Your task to perform on an android device: Clear all items from cart on ebay.com. Add lenovo thinkpad to the cart on ebay.com Image 0: 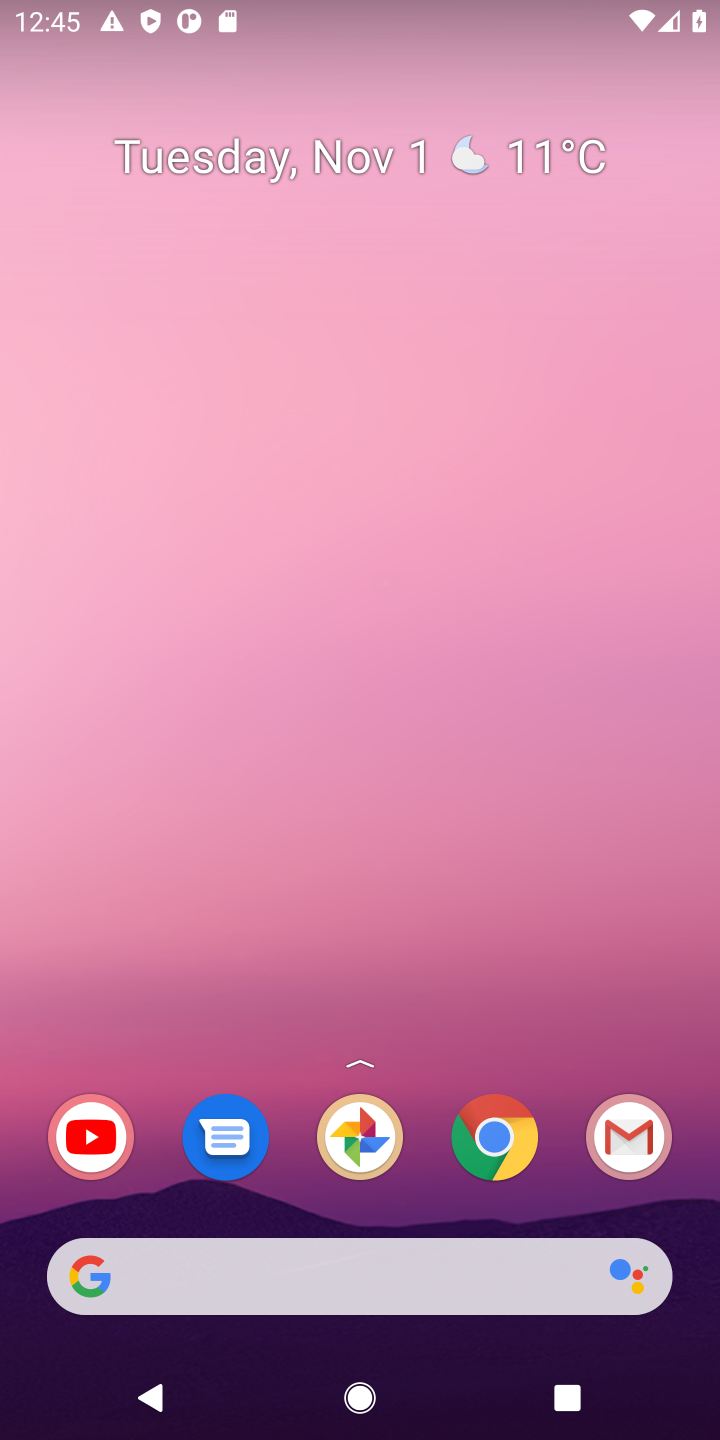
Step 0: click (486, 1137)
Your task to perform on an android device: Clear all items from cart on ebay.com. Add lenovo thinkpad to the cart on ebay.com Image 1: 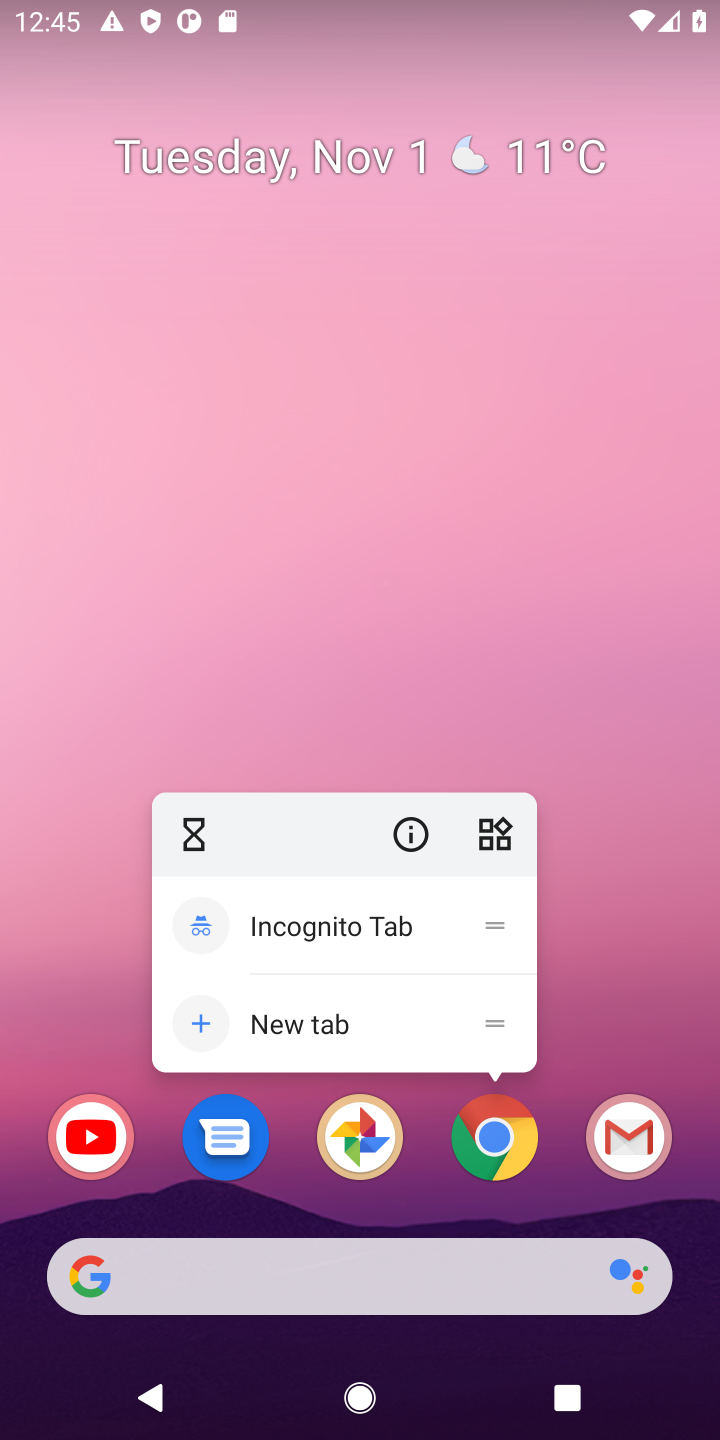
Step 1: click (488, 1141)
Your task to perform on an android device: Clear all items from cart on ebay.com. Add lenovo thinkpad to the cart on ebay.com Image 2: 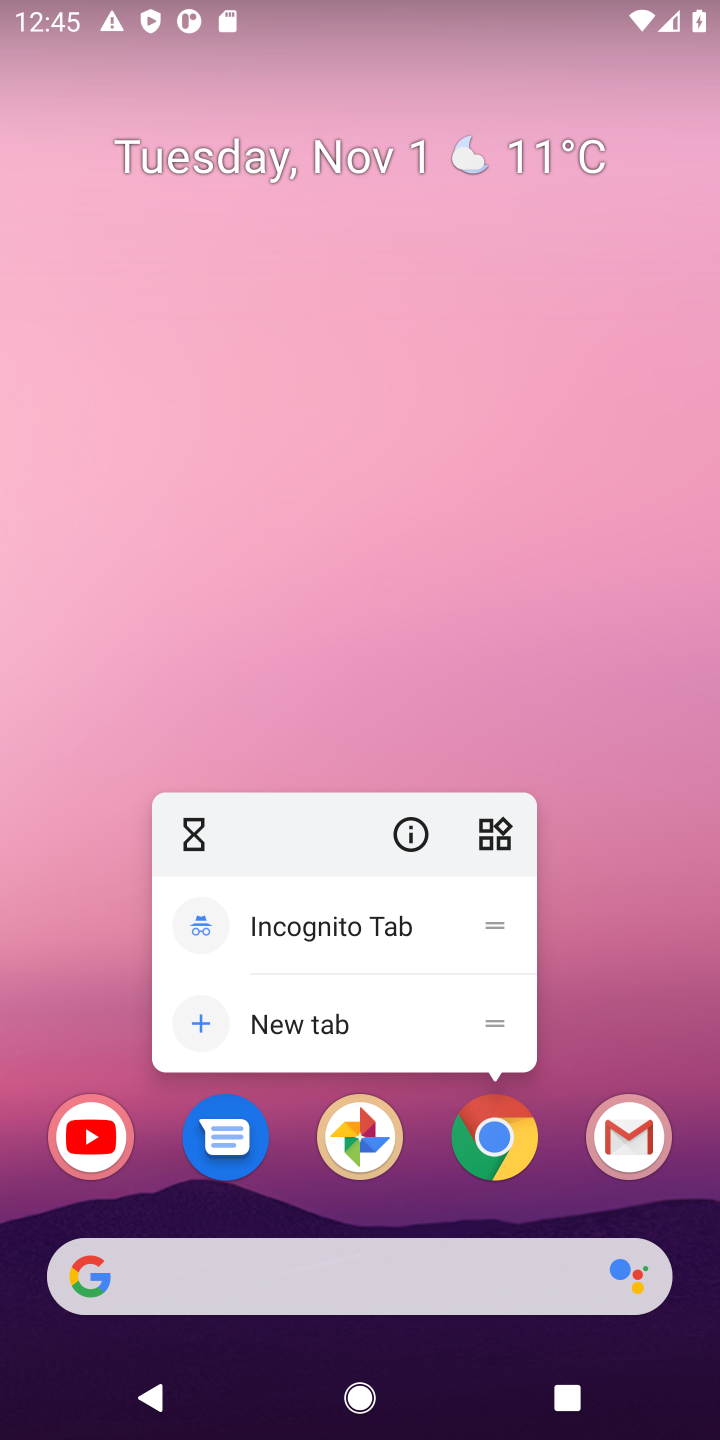
Step 2: click (488, 1141)
Your task to perform on an android device: Clear all items from cart on ebay.com. Add lenovo thinkpad to the cart on ebay.com Image 3: 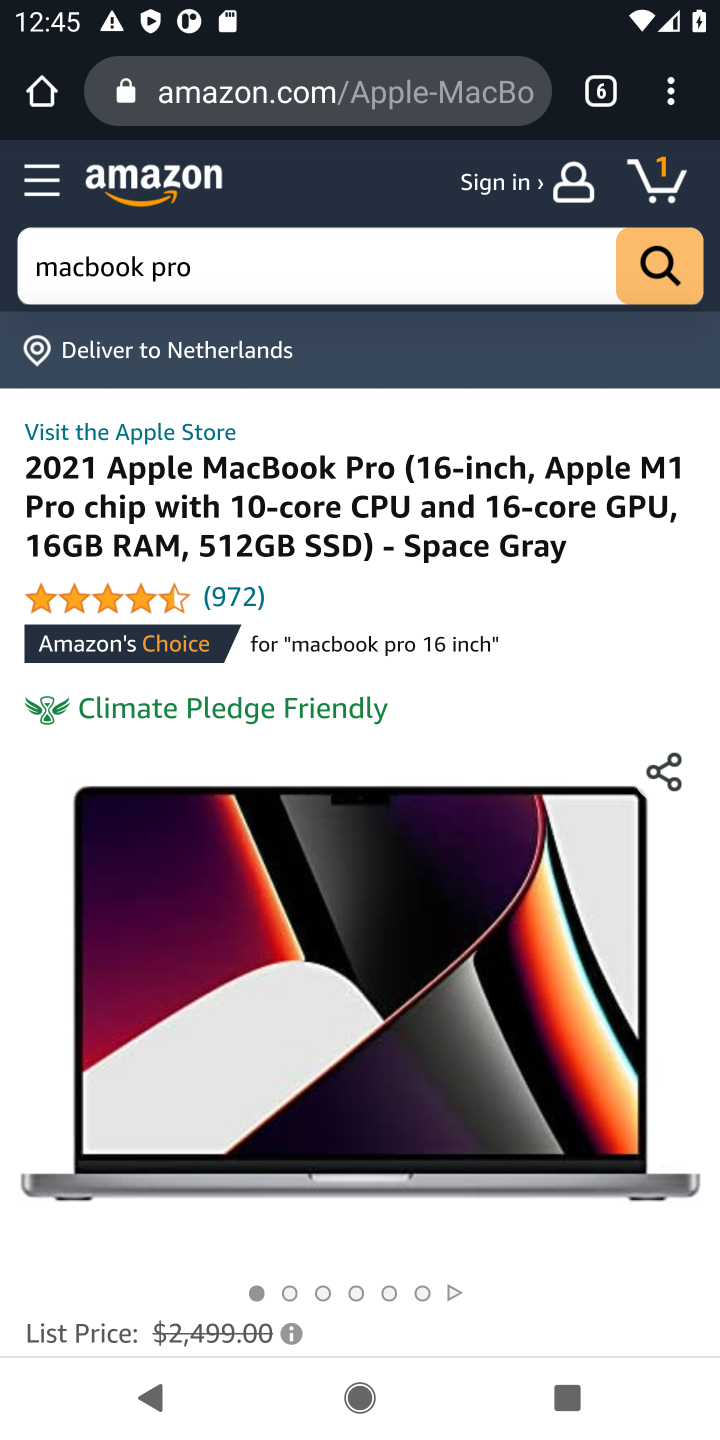
Step 3: click (598, 100)
Your task to perform on an android device: Clear all items from cart on ebay.com. Add lenovo thinkpad to the cart on ebay.com Image 4: 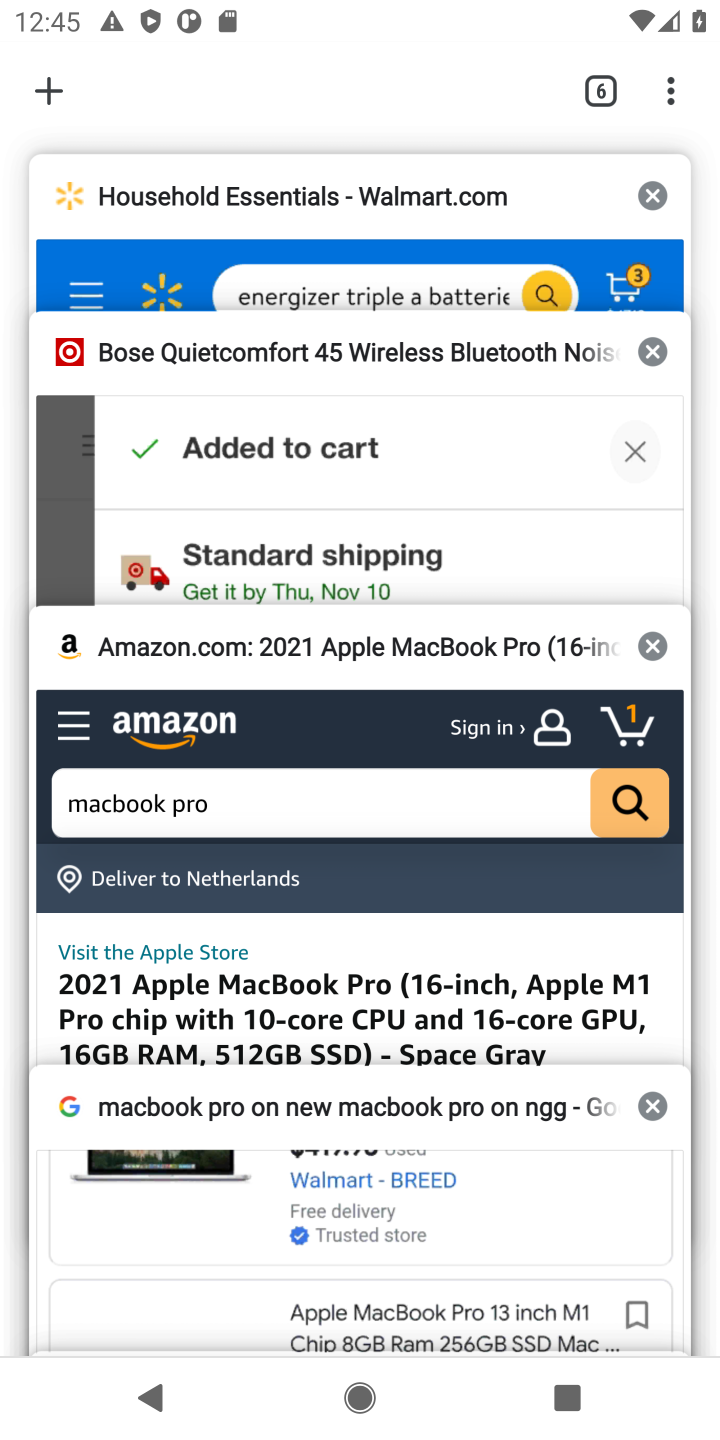
Step 4: drag from (162, 1238) to (320, 541)
Your task to perform on an android device: Clear all items from cart on ebay.com. Add lenovo thinkpad to the cart on ebay.com Image 5: 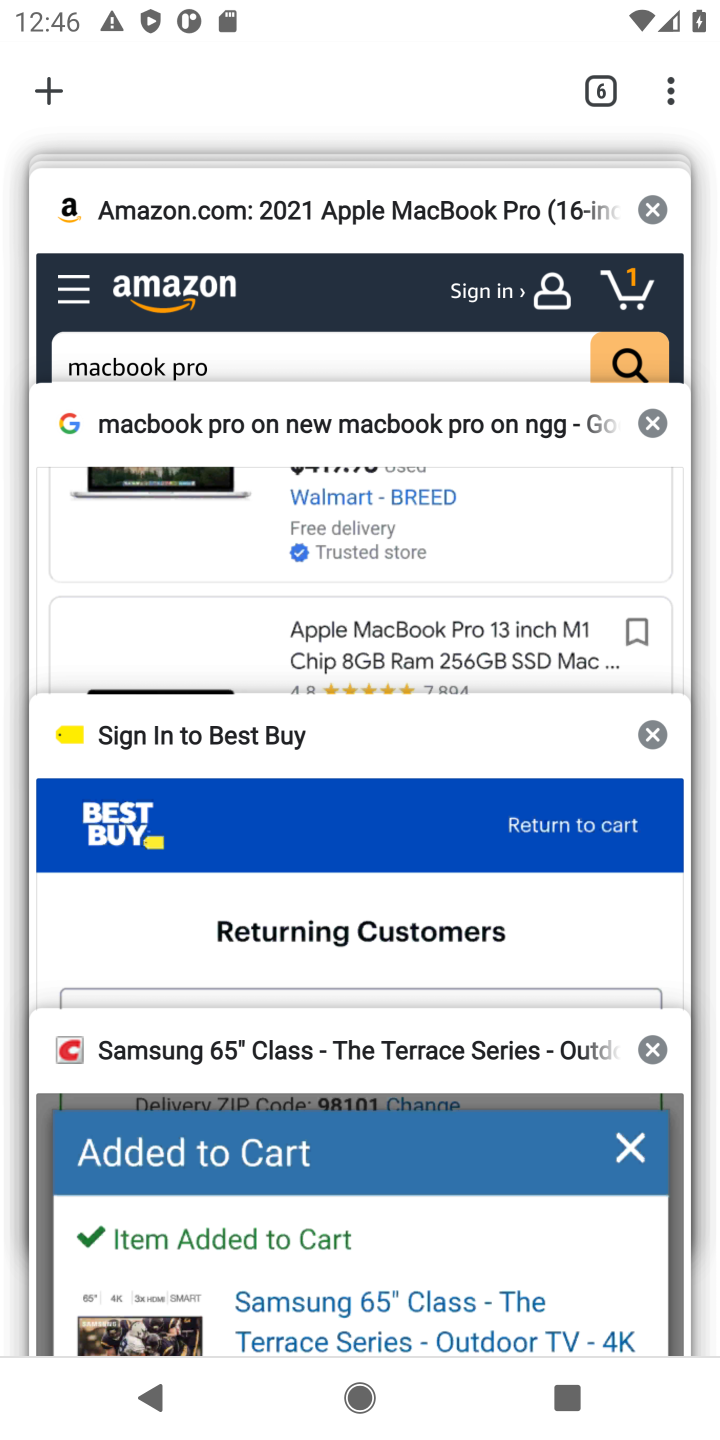
Step 5: click (45, 83)
Your task to perform on an android device: Clear all items from cart on ebay.com. Add lenovo thinkpad to the cart on ebay.com Image 6: 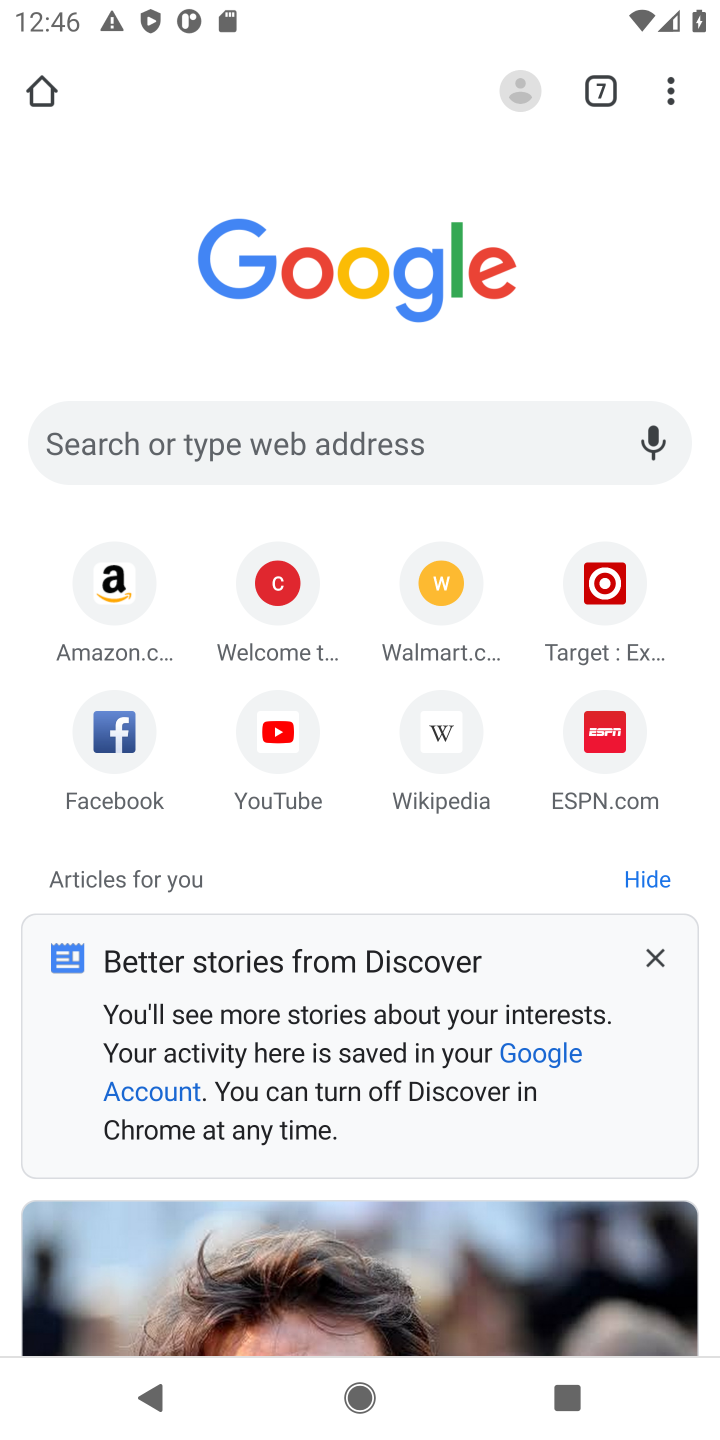
Step 6: click (350, 428)
Your task to perform on an android device: Clear all items from cart on ebay.com. Add lenovo thinkpad to the cart on ebay.com Image 7: 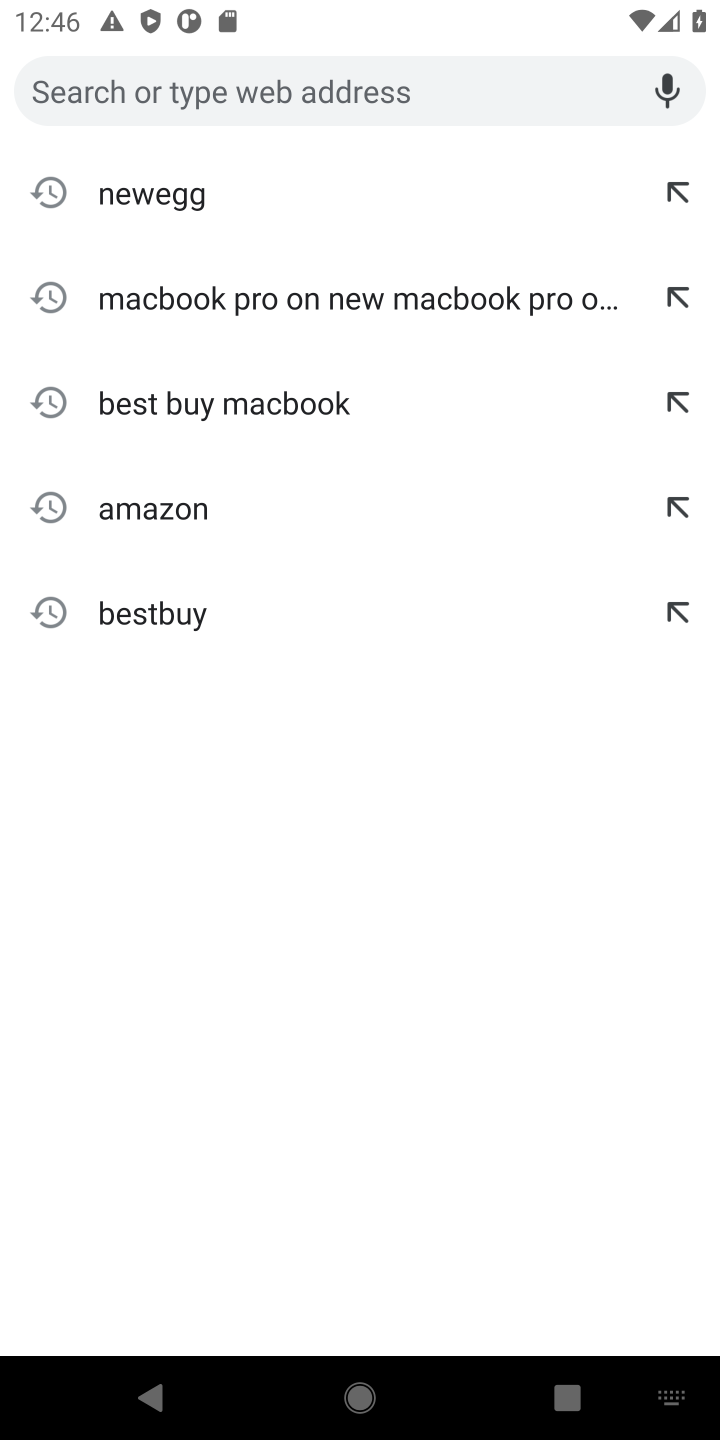
Step 7: type "ebay"
Your task to perform on an android device: Clear all items from cart on ebay.com. Add lenovo thinkpad to the cart on ebay.com Image 8: 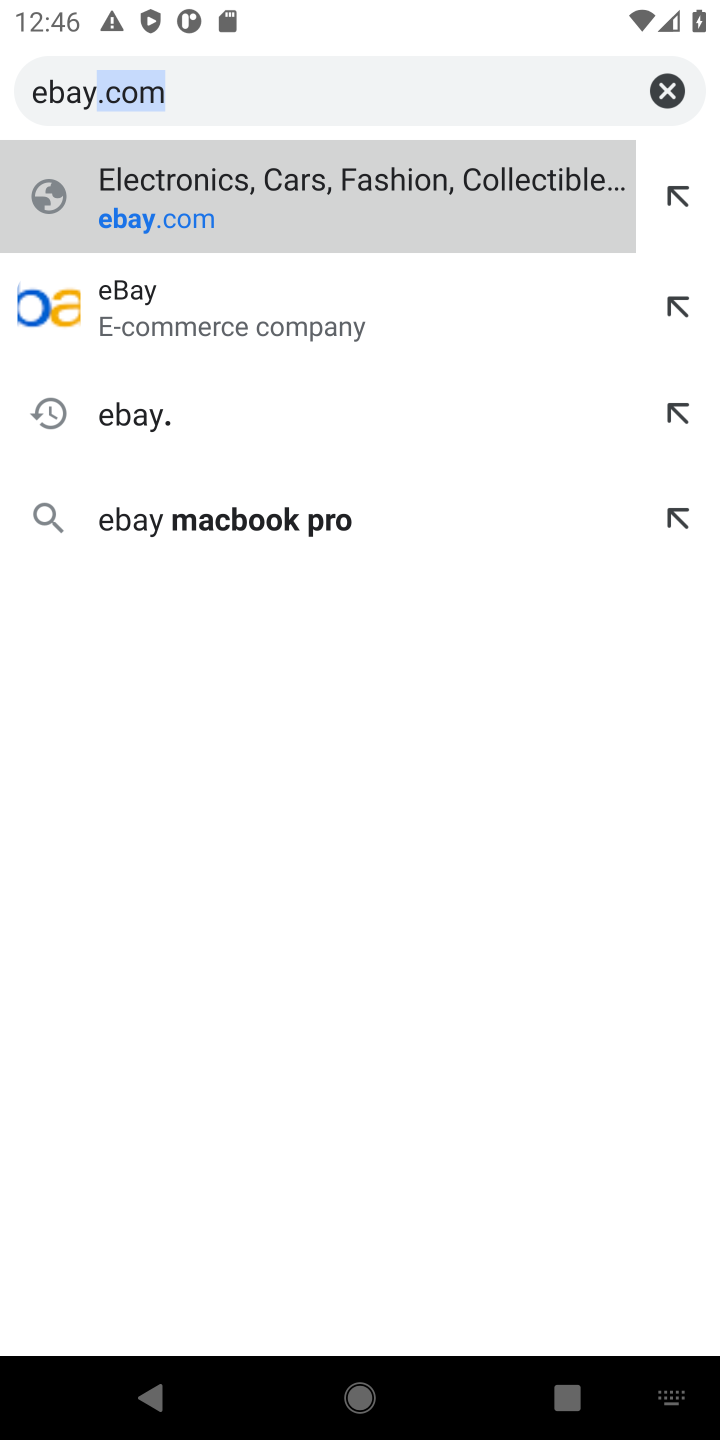
Step 8: click (180, 213)
Your task to perform on an android device: Clear all items from cart on ebay.com. Add lenovo thinkpad to the cart on ebay.com Image 9: 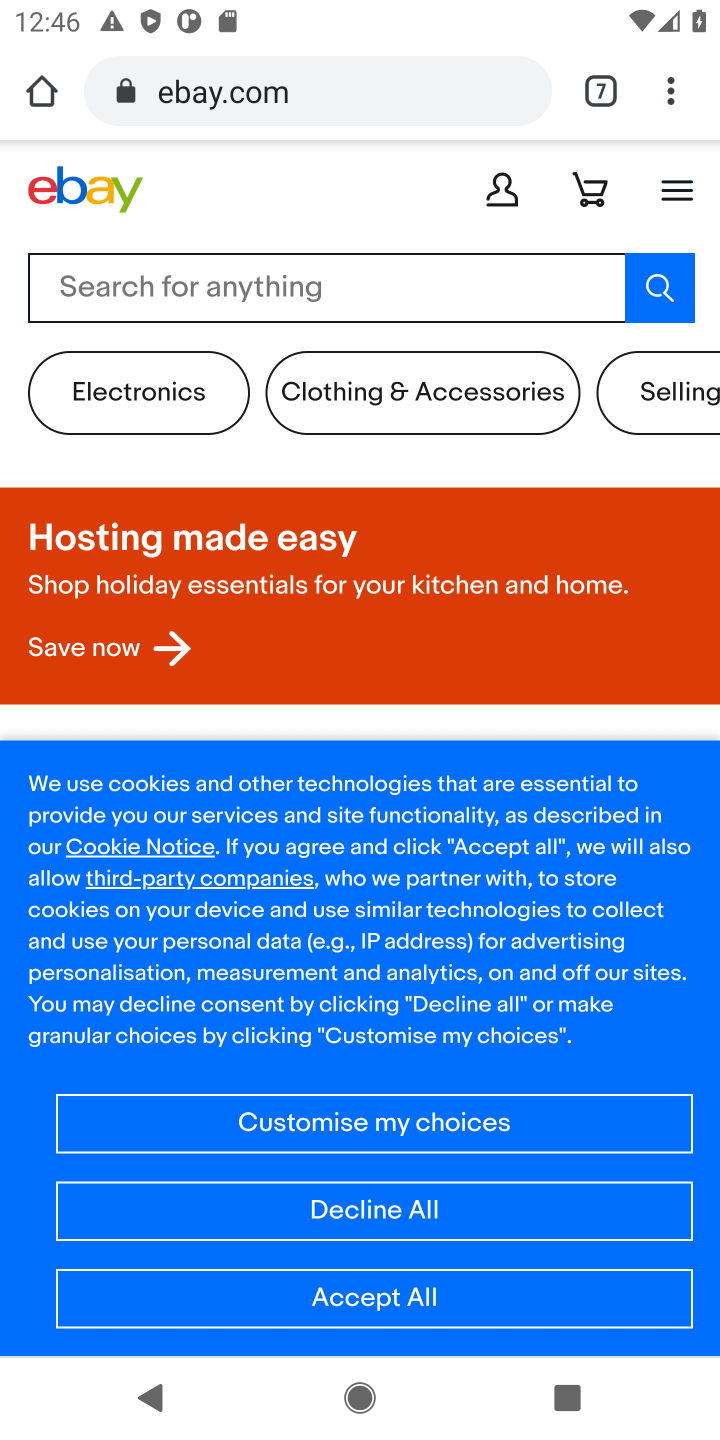
Step 9: click (412, 1209)
Your task to perform on an android device: Clear all items from cart on ebay.com. Add lenovo thinkpad to the cart on ebay.com Image 10: 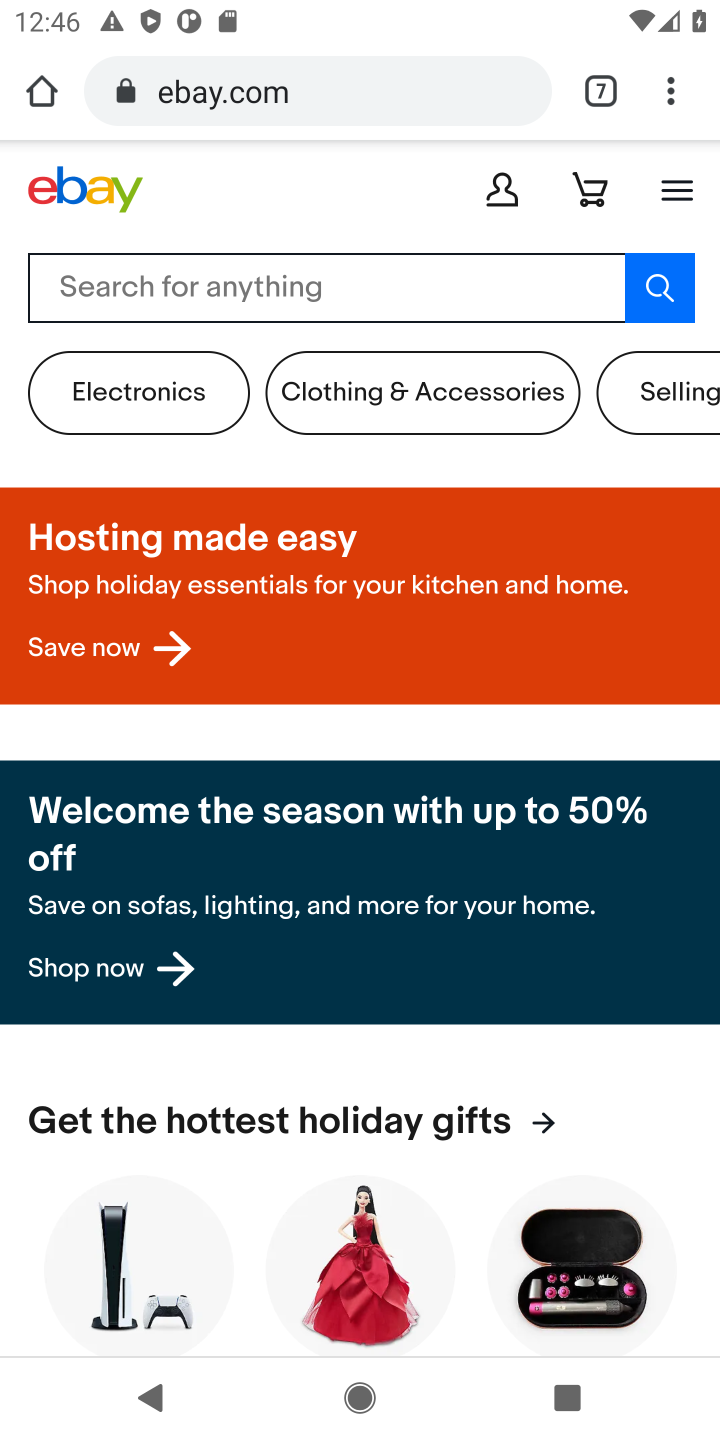
Step 10: click (334, 280)
Your task to perform on an android device: Clear all items from cart on ebay.com. Add lenovo thinkpad to the cart on ebay.com Image 11: 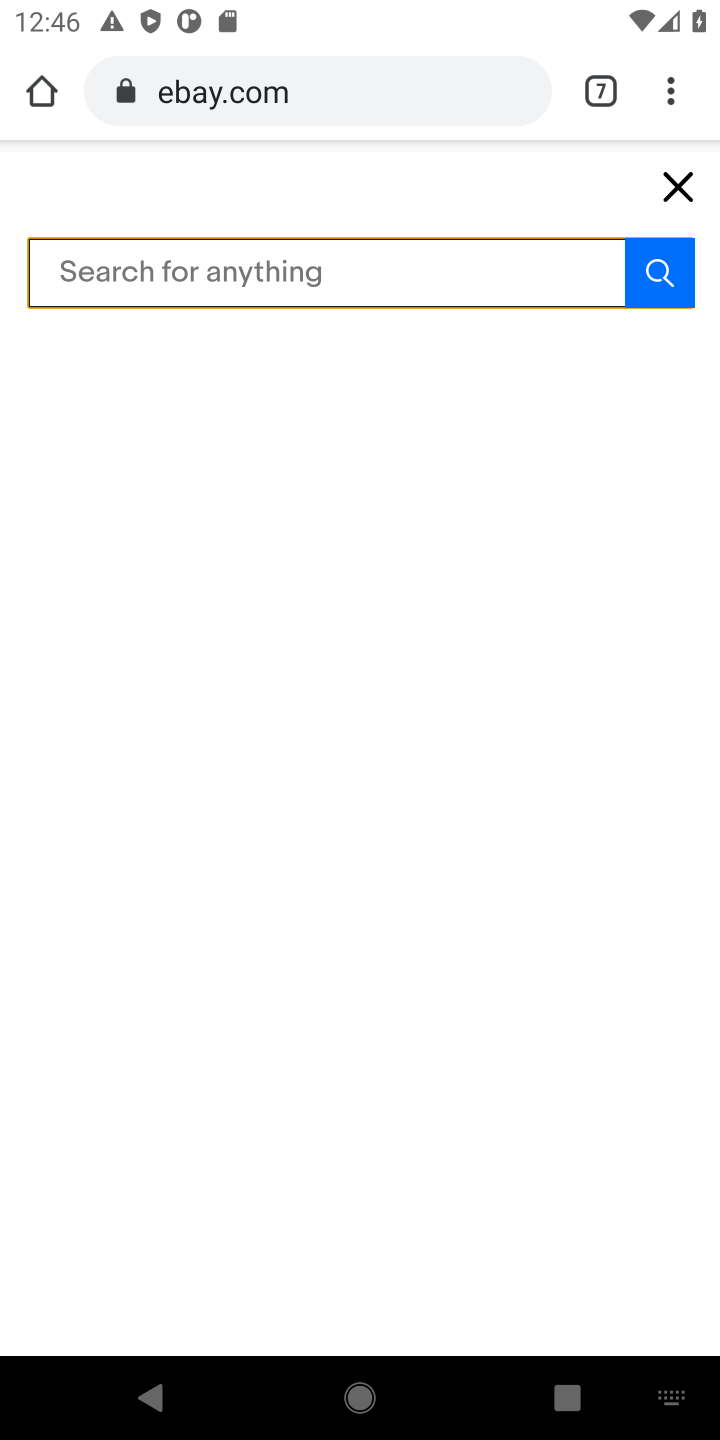
Step 11: type "lenovo thinkpad"
Your task to perform on an android device: Clear all items from cart on ebay.com. Add lenovo thinkpad to the cart on ebay.com Image 12: 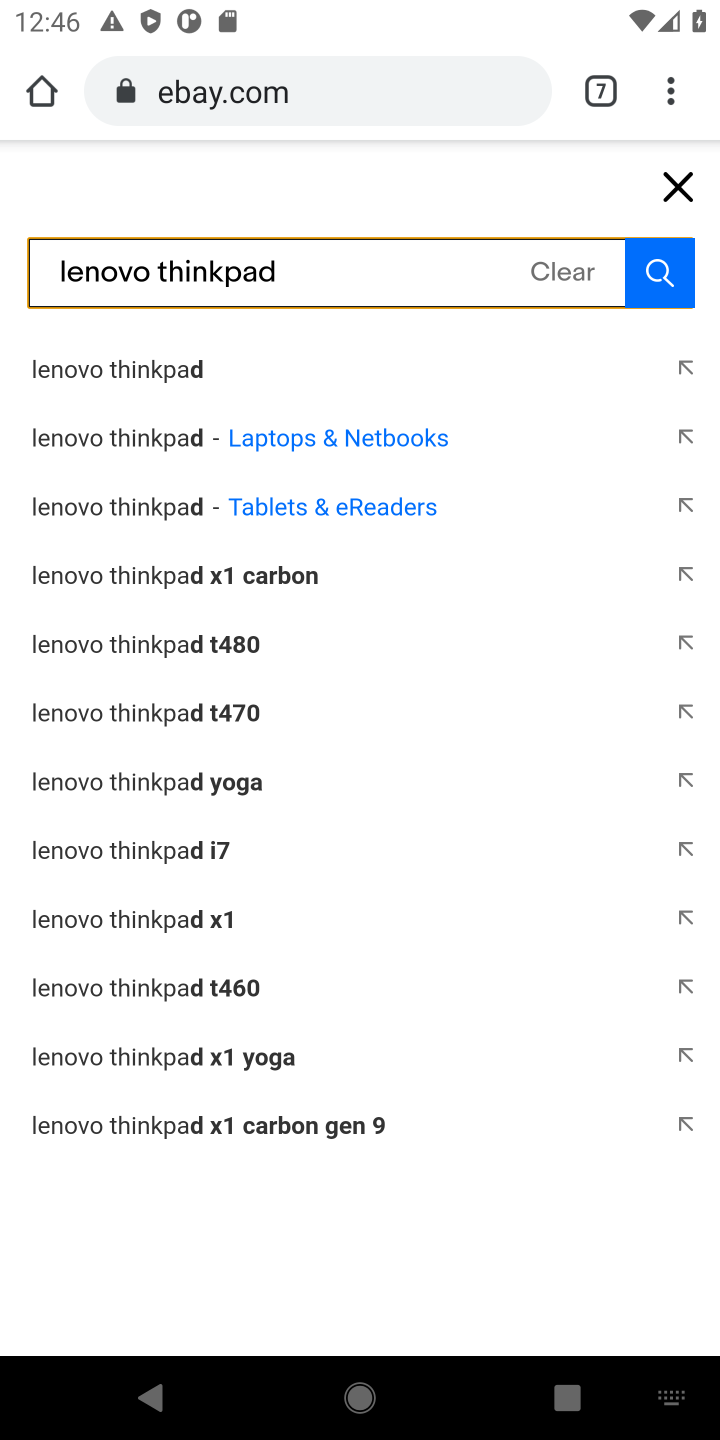
Step 12: click (156, 424)
Your task to perform on an android device: Clear all items from cart on ebay.com. Add lenovo thinkpad to the cart on ebay.com Image 13: 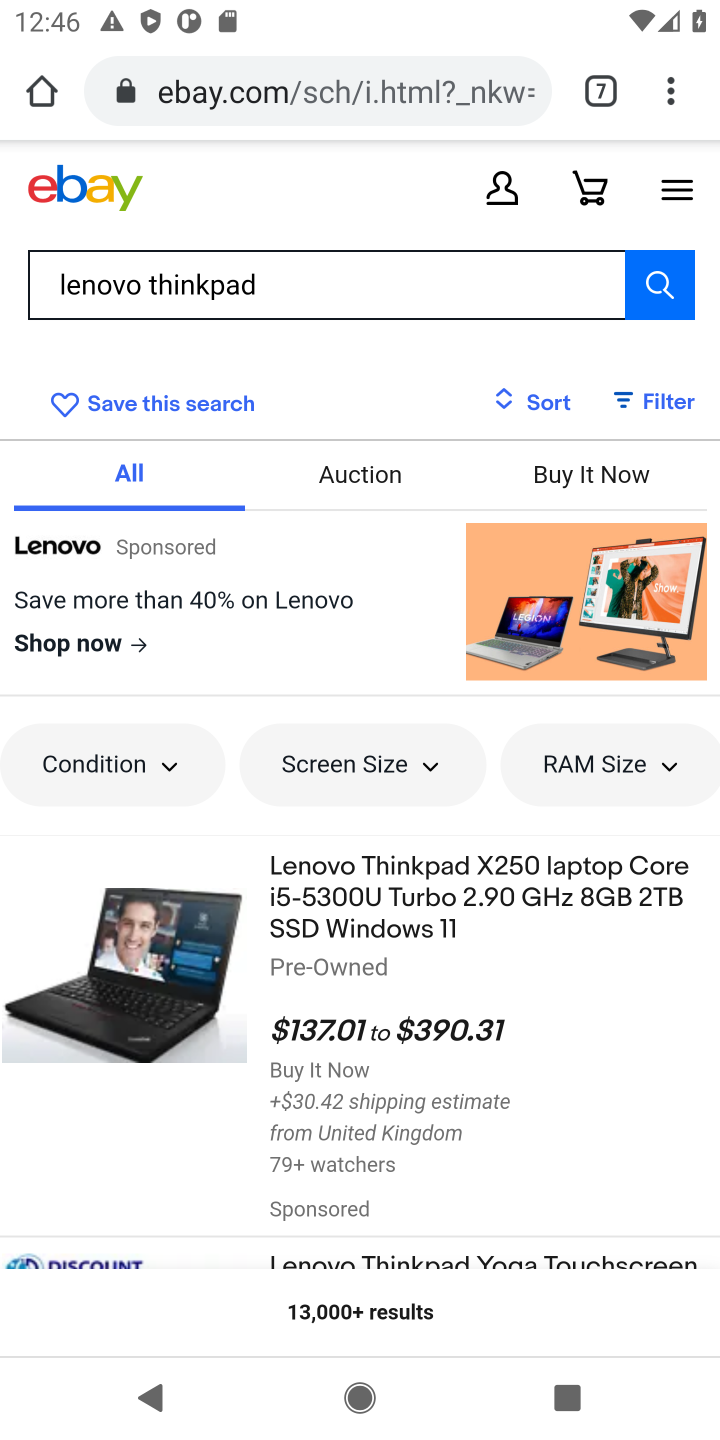
Step 13: click (380, 926)
Your task to perform on an android device: Clear all items from cart on ebay.com. Add lenovo thinkpad to the cart on ebay.com Image 14: 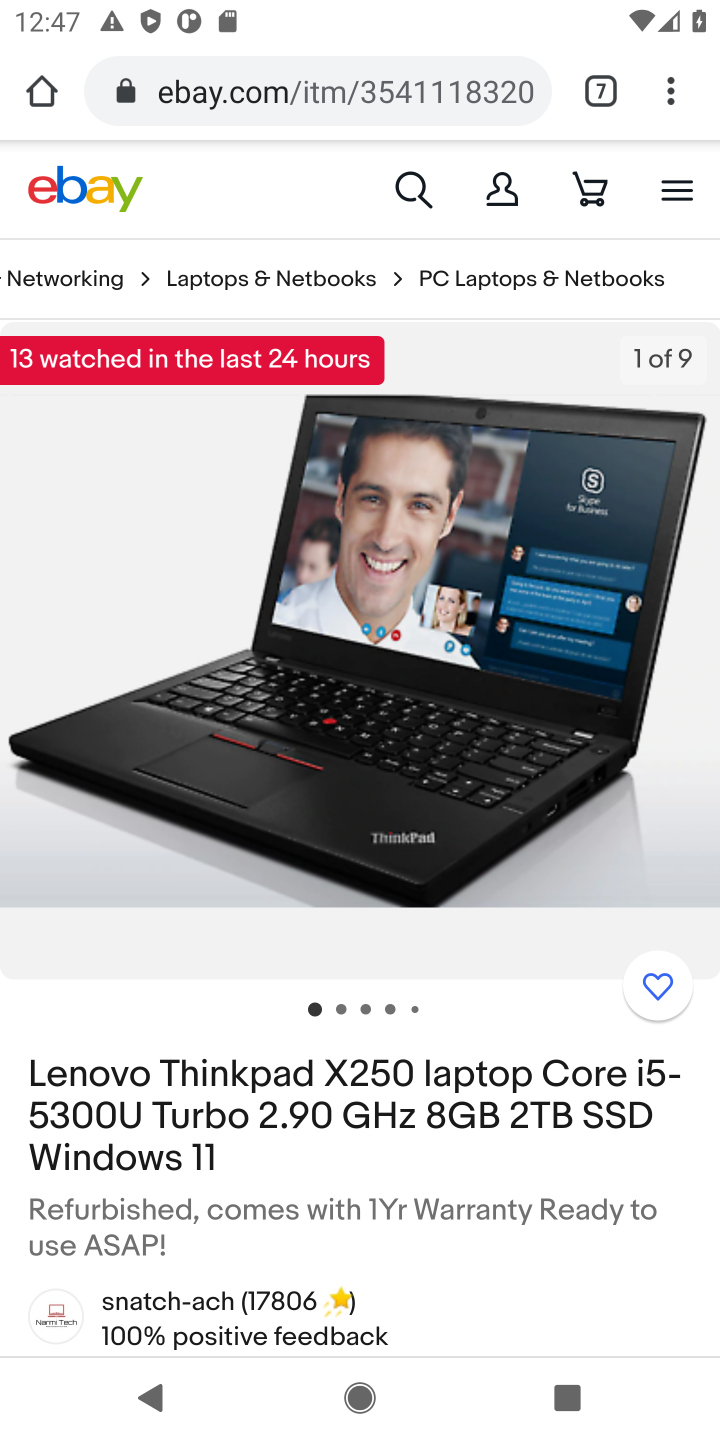
Step 14: drag from (403, 1243) to (551, 374)
Your task to perform on an android device: Clear all items from cart on ebay.com. Add lenovo thinkpad to the cart on ebay.com Image 15: 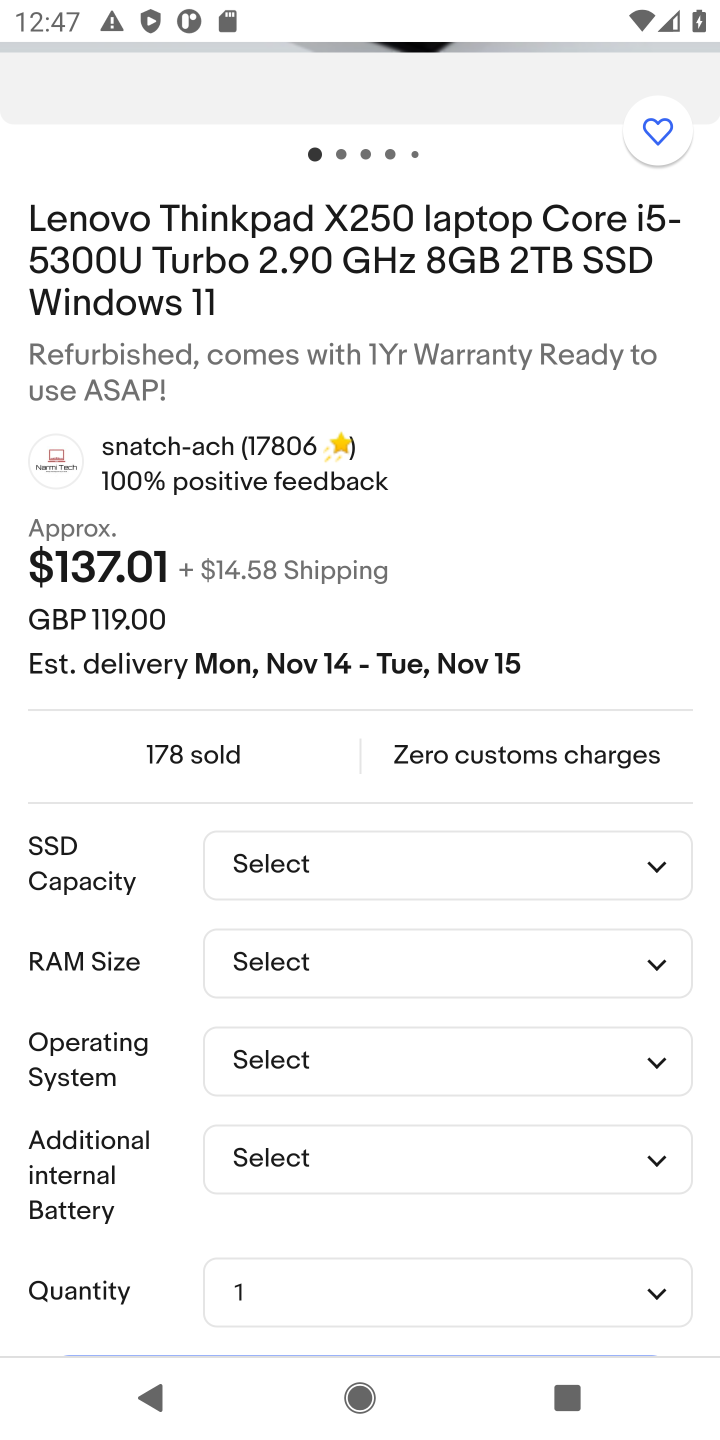
Step 15: drag from (457, 1057) to (515, 720)
Your task to perform on an android device: Clear all items from cart on ebay.com. Add lenovo thinkpad to the cart on ebay.com Image 16: 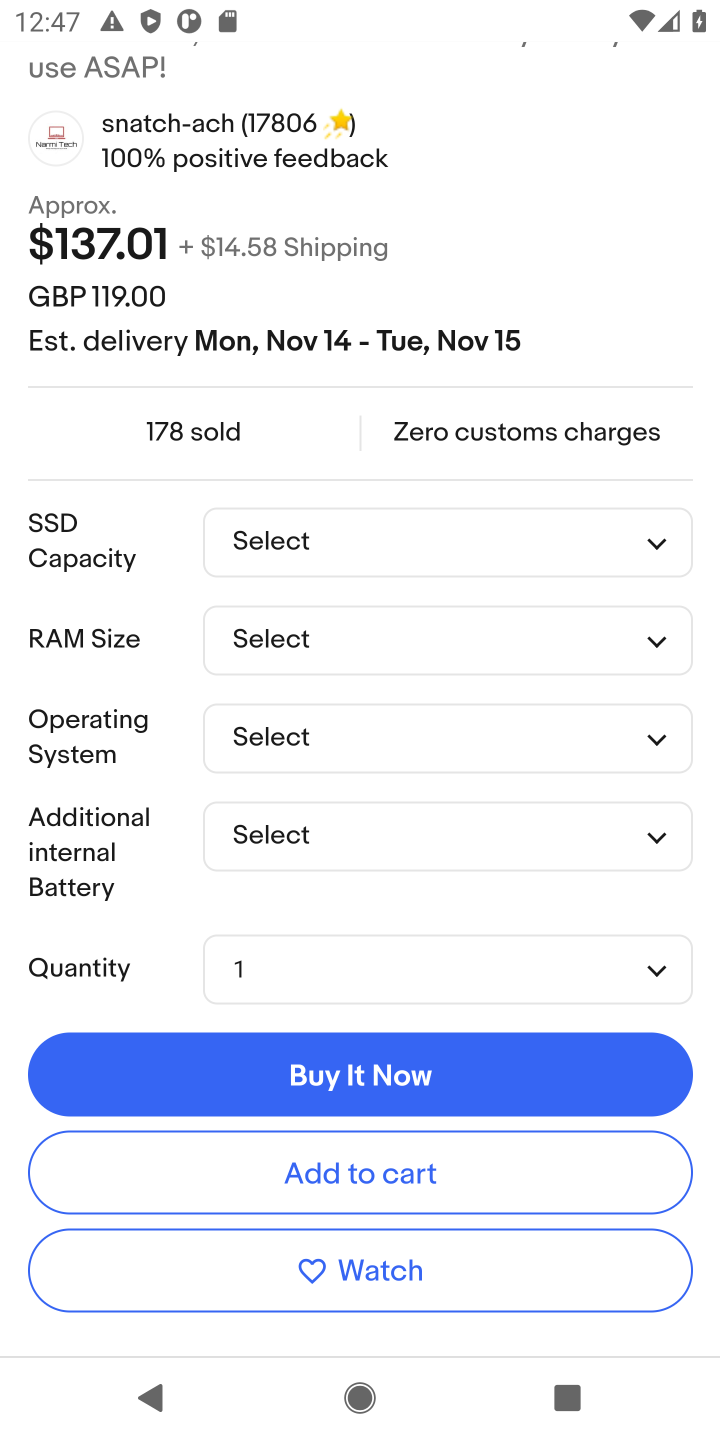
Step 16: click (367, 1182)
Your task to perform on an android device: Clear all items from cart on ebay.com. Add lenovo thinkpad to the cart on ebay.com Image 17: 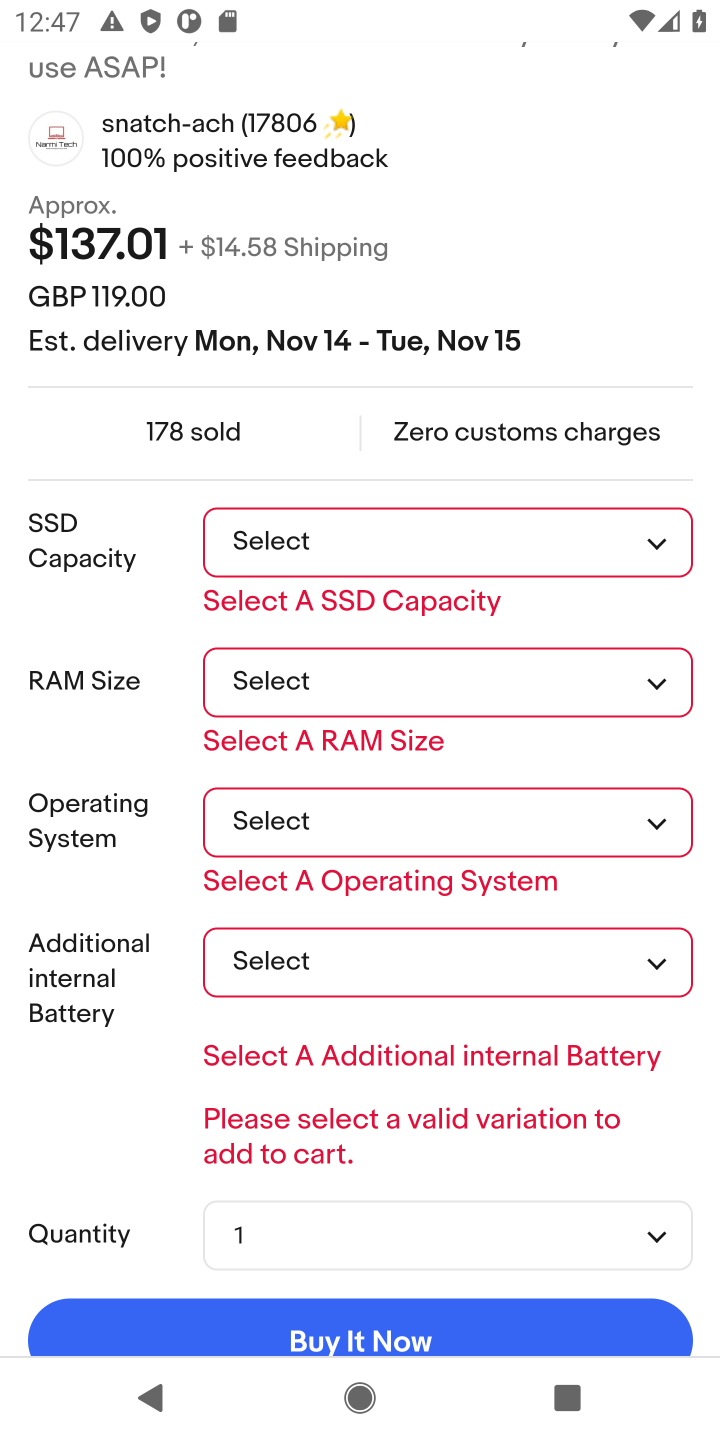
Step 17: drag from (450, 1162) to (562, 390)
Your task to perform on an android device: Clear all items from cart on ebay.com. Add lenovo thinkpad to the cart on ebay.com Image 18: 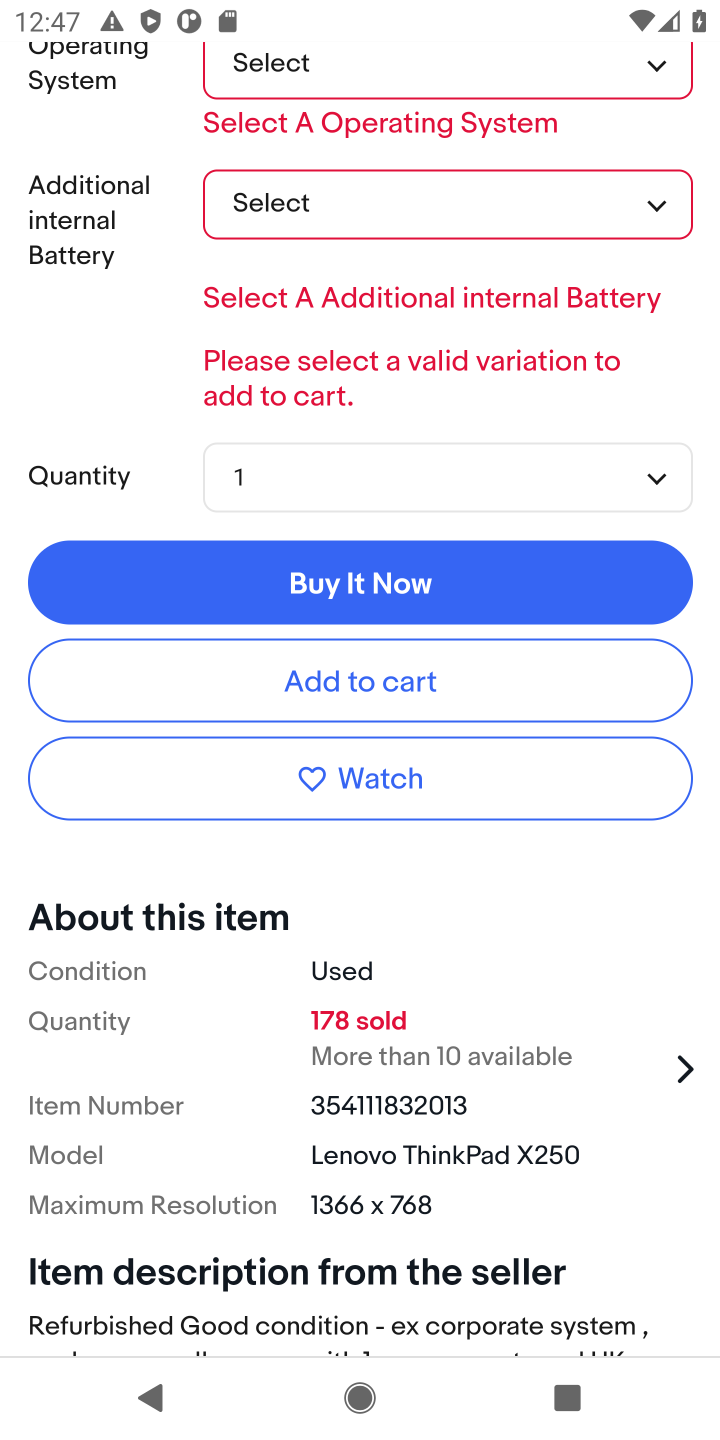
Step 18: click (400, 661)
Your task to perform on an android device: Clear all items from cart on ebay.com. Add lenovo thinkpad to the cart on ebay.com Image 19: 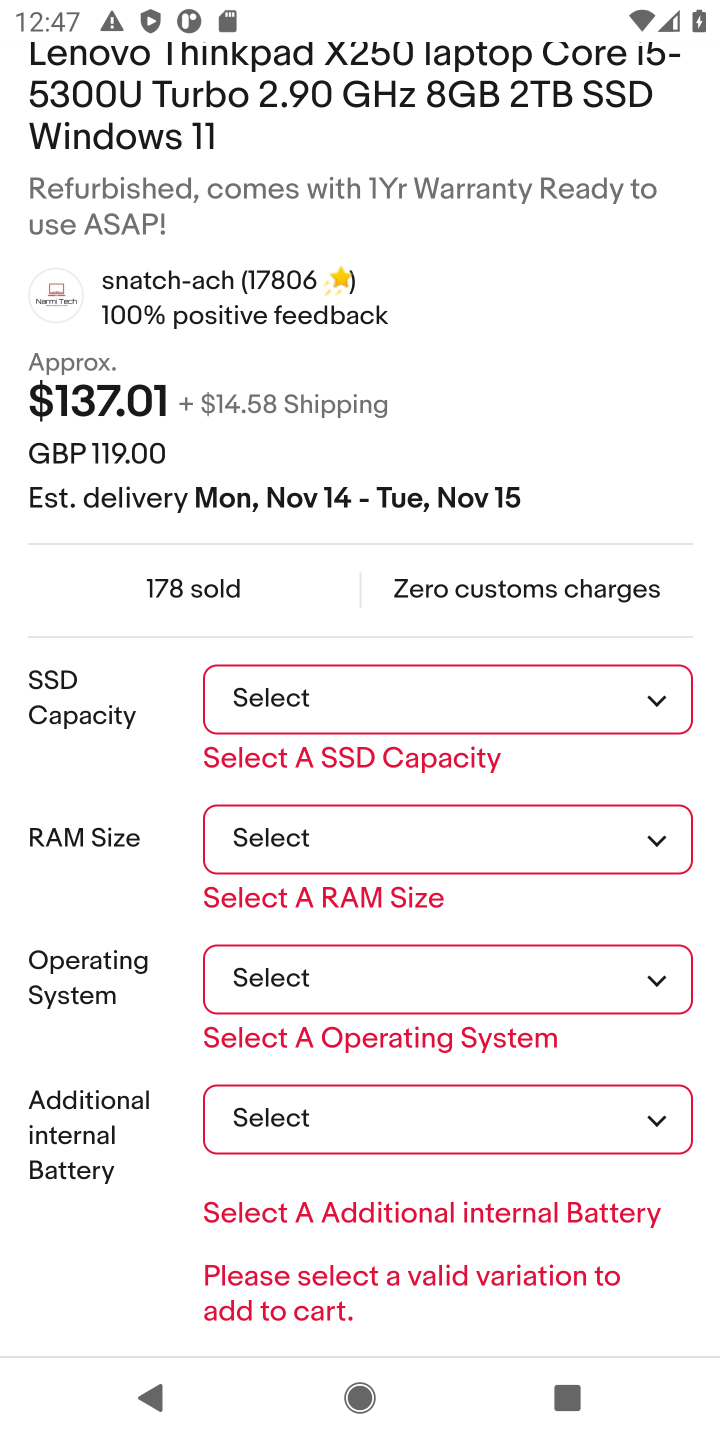
Step 19: click (663, 687)
Your task to perform on an android device: Clear all items from cart on ebay.com. Add lenovo thinkpad to the cart on ebay.com Image 20: 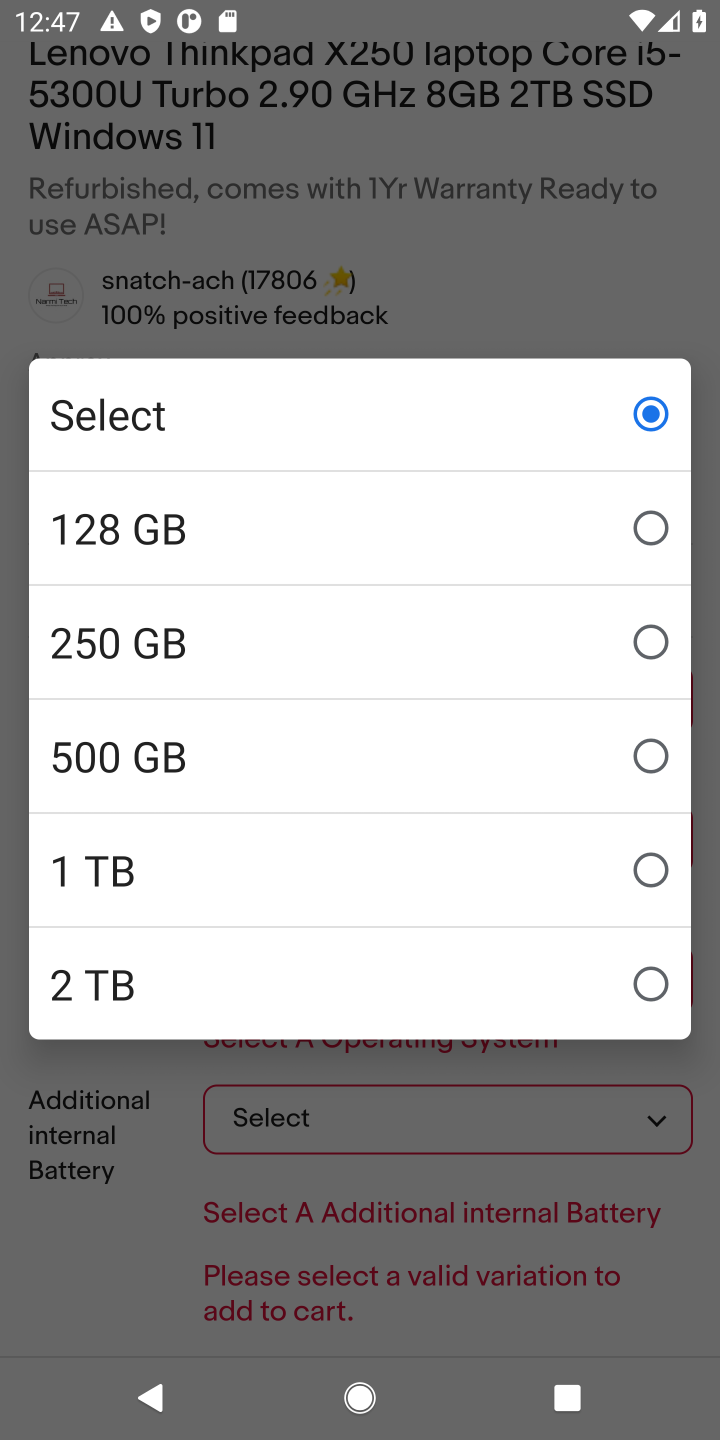
Step 20: click (652, 647)
Your task to perform on an android device: Clear all items from cart on ebay.com. Add lenovo thinkpad to the cart on ebay.com Image 21: 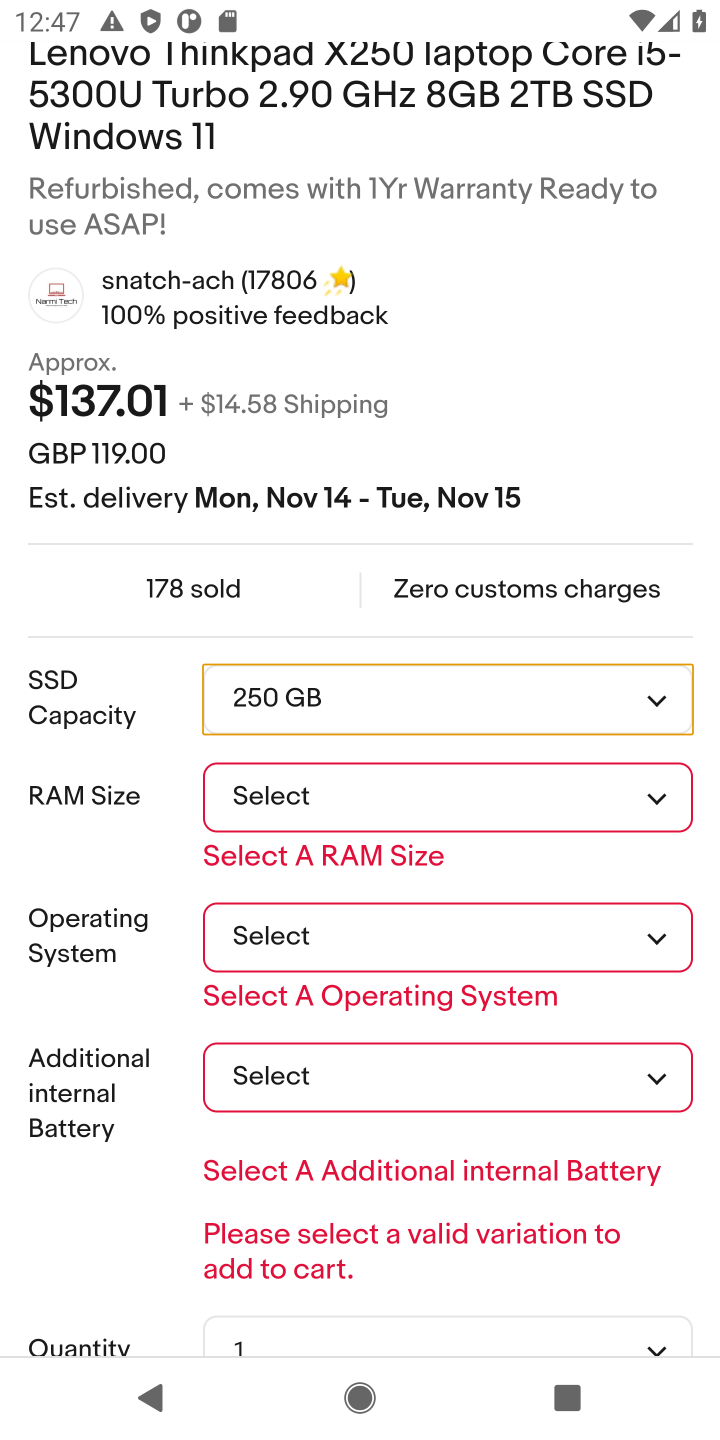
Step 21: click (660, 796)
Your task to perform on an android device: Clear all items from cart on ebay.com. Add lenovo thinkpad to the cart on ebay.com Image 22: 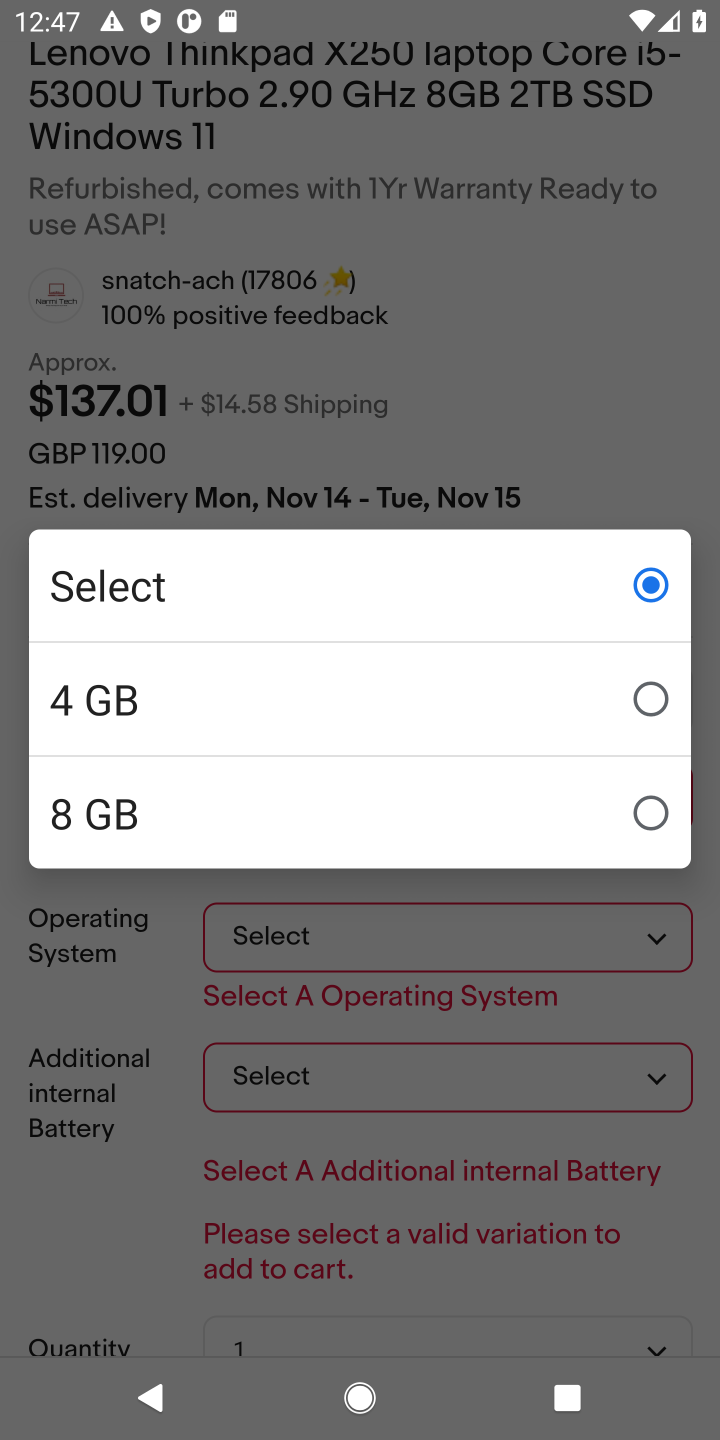
Step 22: click (663, 804)
Your task to perform on an android device: Clear all items from cart on ebay.com. Add lenovo thinkpad to the cart on ebay.com Image 23: 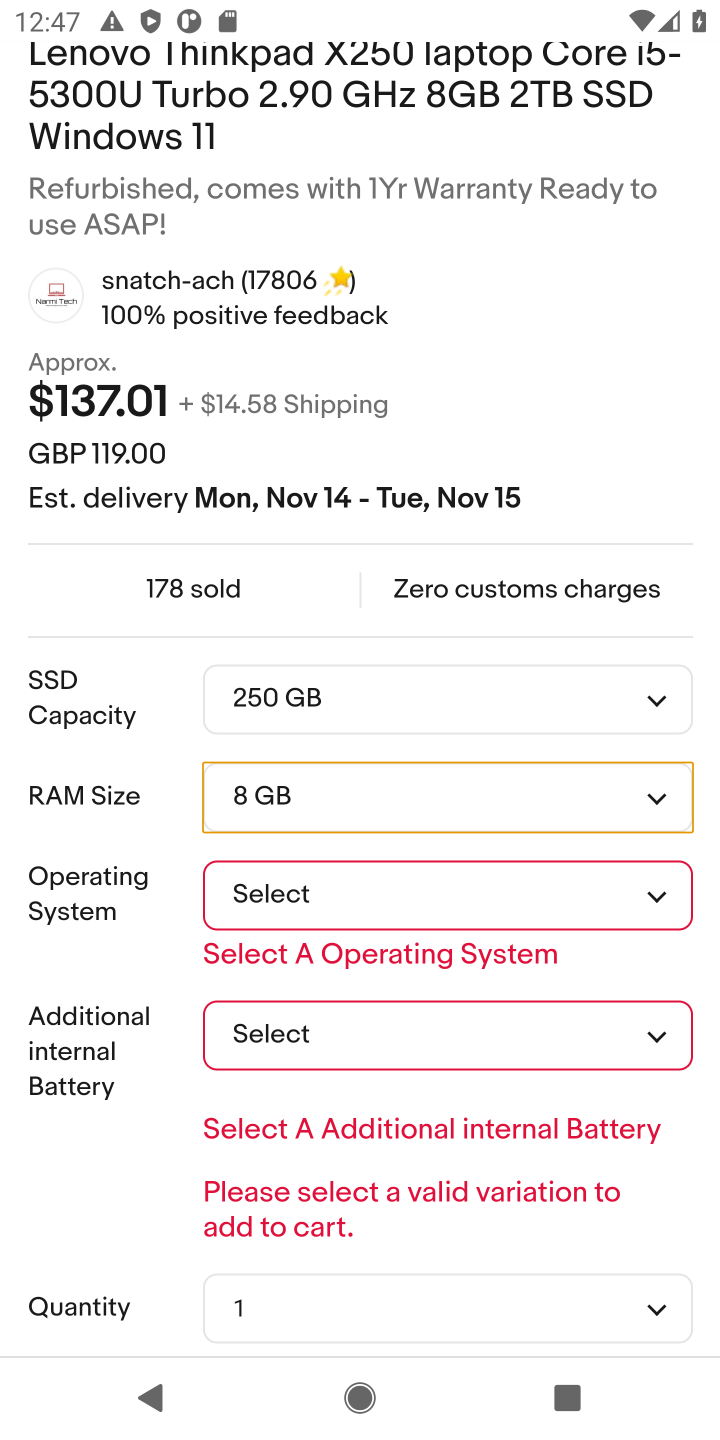
Step 23: click (668, 887)
Your task to perform on an android device: Clear all items from cart on ebay.com. Add lenovo thinkpad to the cart on ebay.com Image 24: 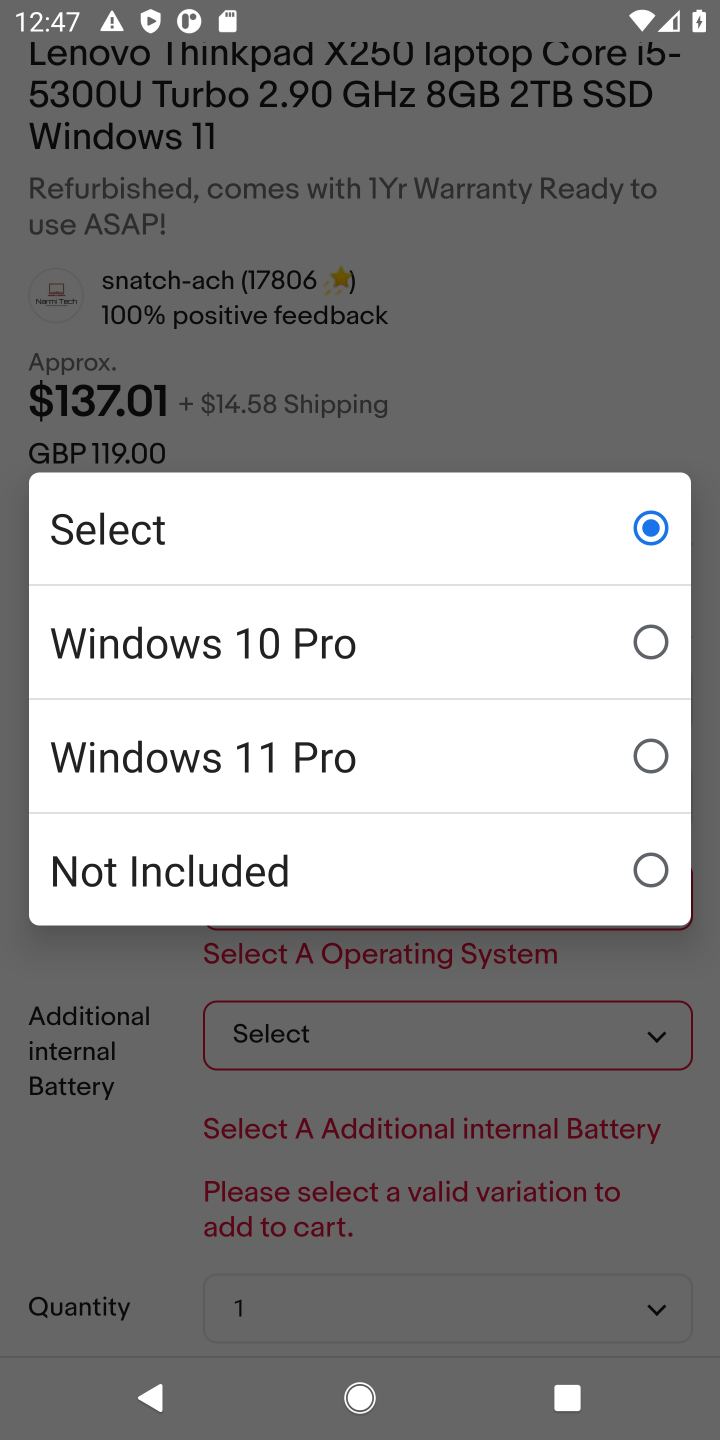
Step 24: click (652, 848)
Your task to perform on an android device: Clear all items from cart on ebay.com. Add lenovo thinkpad to the cart on ebay.com Image 25: 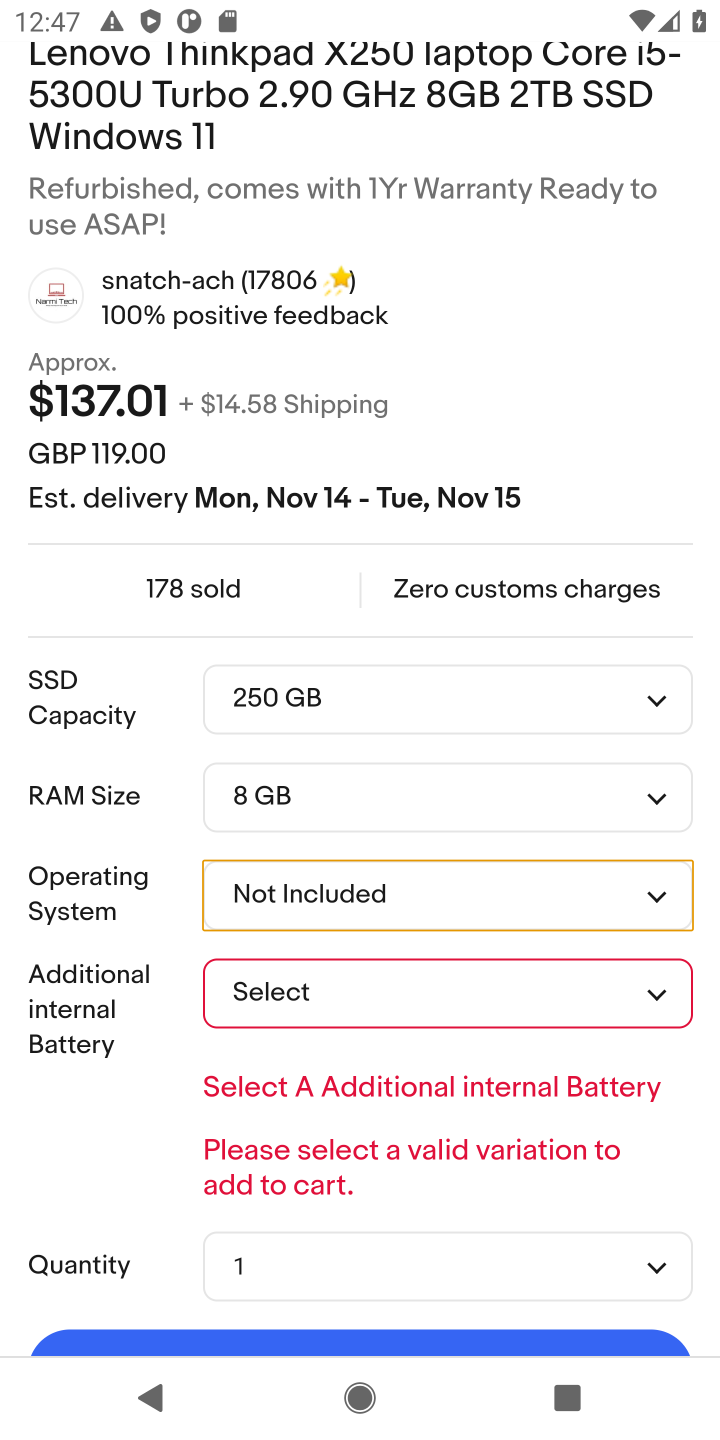
Step 25: click (647, 1035)
Your task to perform on an android device: Clear all items from cart on ebay.com. Add lenovo thinkpad to the cart on ebay.com Image 26: 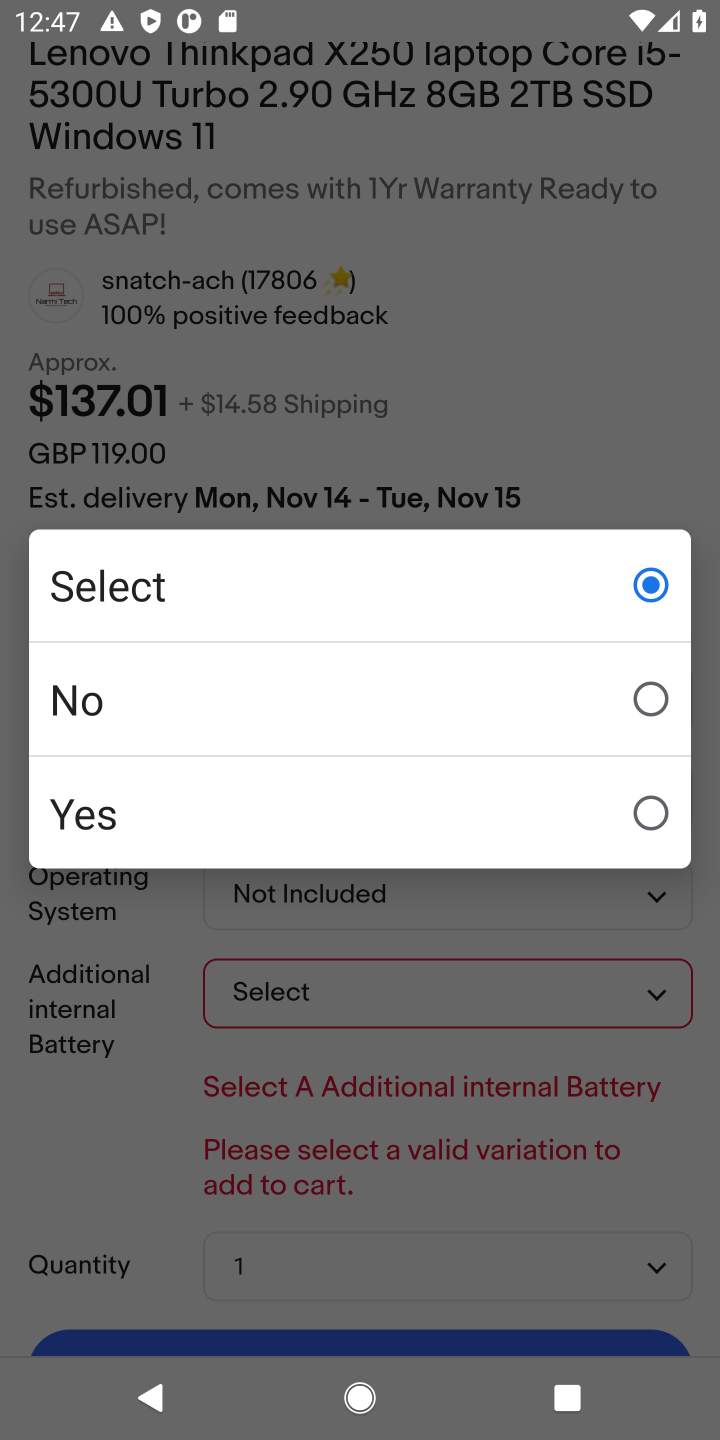
Step 26: click (655, 827)
Your task to perform on an android device: Clear all items from cart on ebay.com. Add lenovo thinkpad to the cart on ebay.com Image 27: 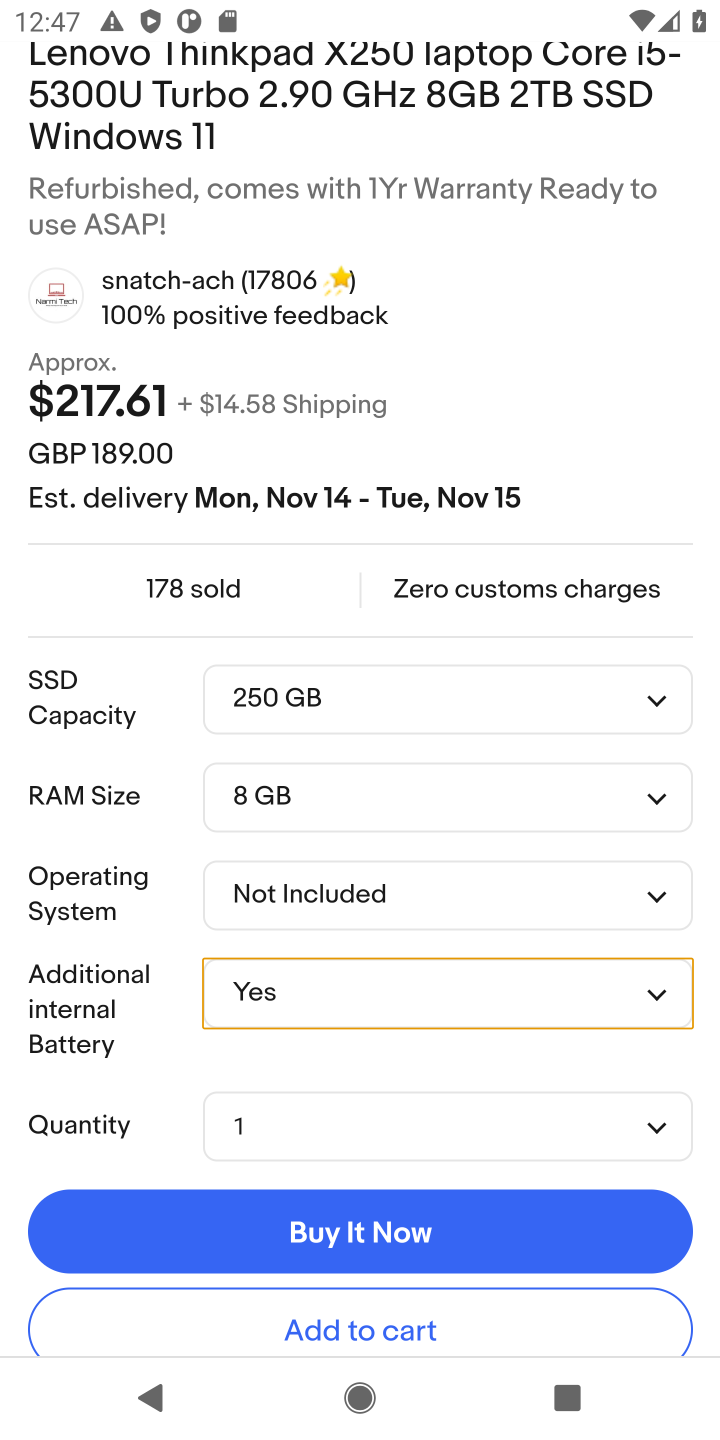
Step 27: click (477, 1316)
Your task to perform on an android device: Clear all items from cart on ebay.com. Add lenovo thinkpad to the cart on ebay.com Image 28: 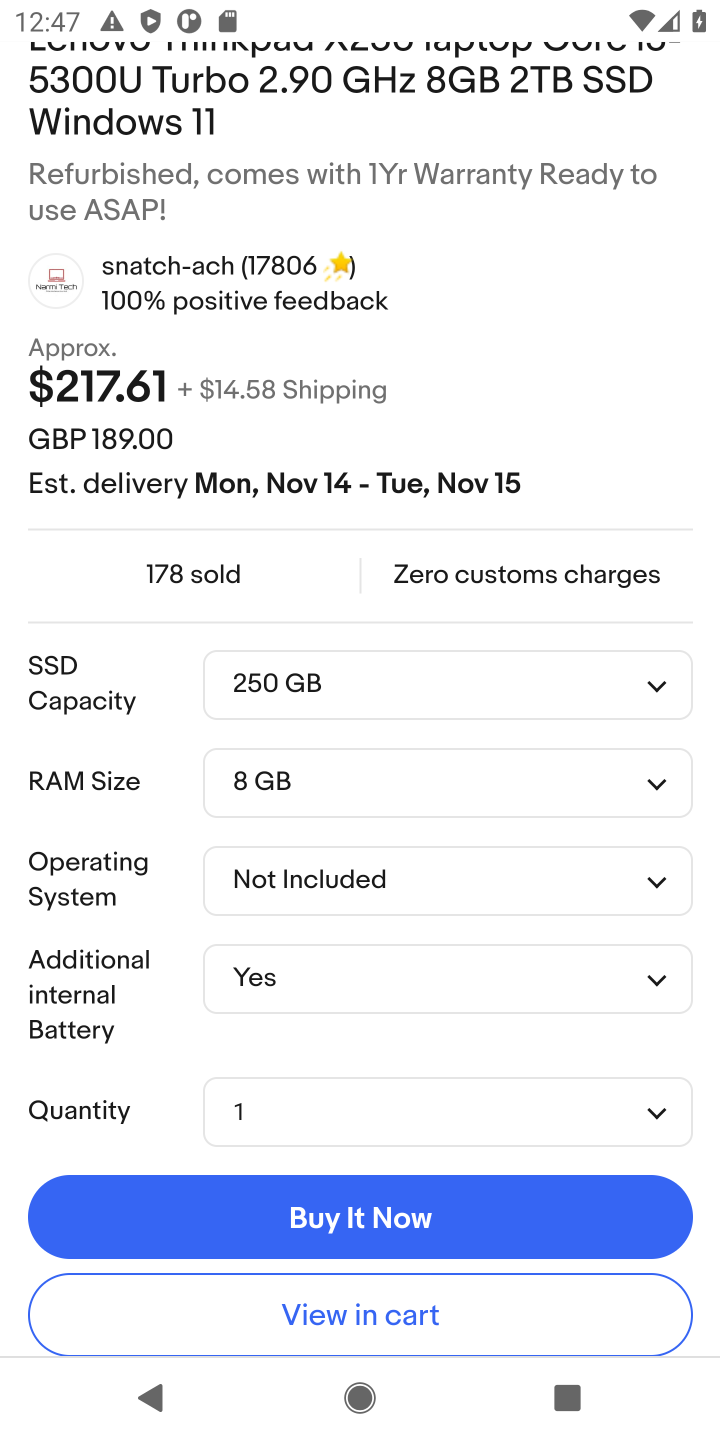
Step 28: task complete